Your task to perform on an android device: Search for Italian restaurants on Maps Image 0: 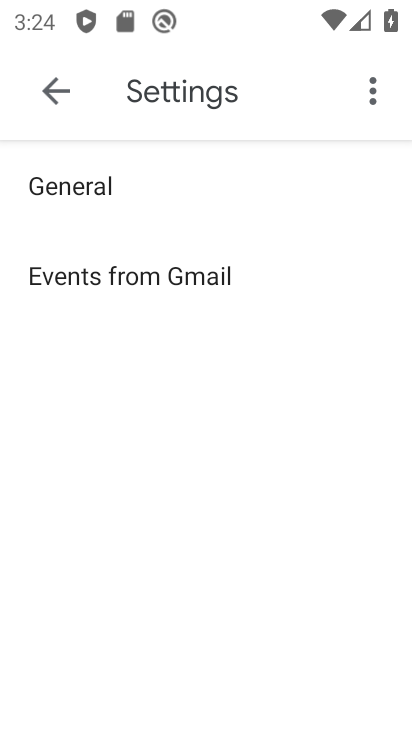
Step 0: press home button
Your task to perform on an android device: Search for Italian restaurants on Maps Image 1: 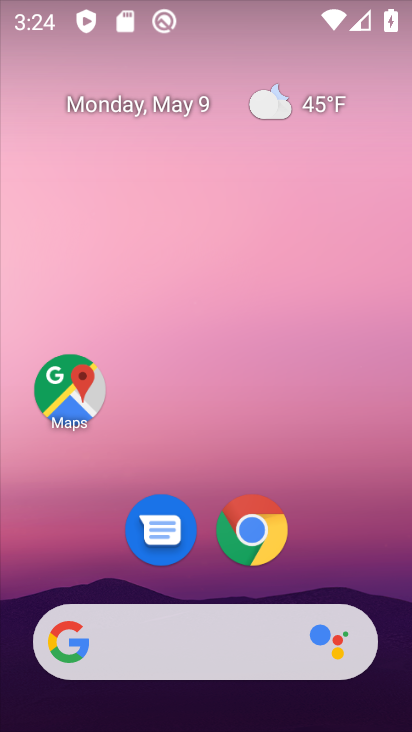
Step 1: click (58, 398)
Your task to perform on an android device: Search for Italian restaurants on Maps Image 2: 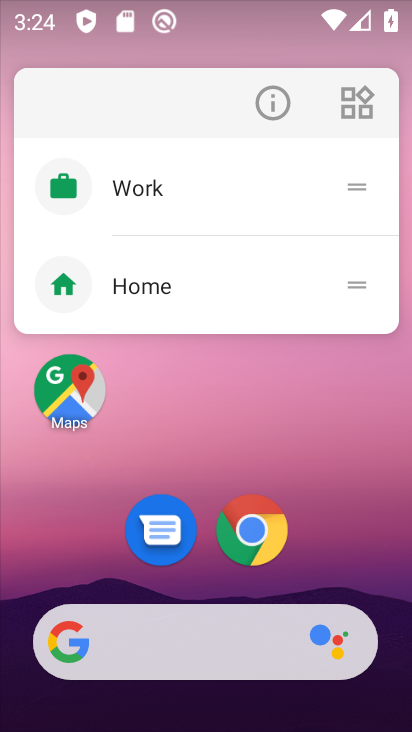
Step 2: click (66, 391)
Your task to perform on an android device: Search for Italian restaurants on Maps Image 3: 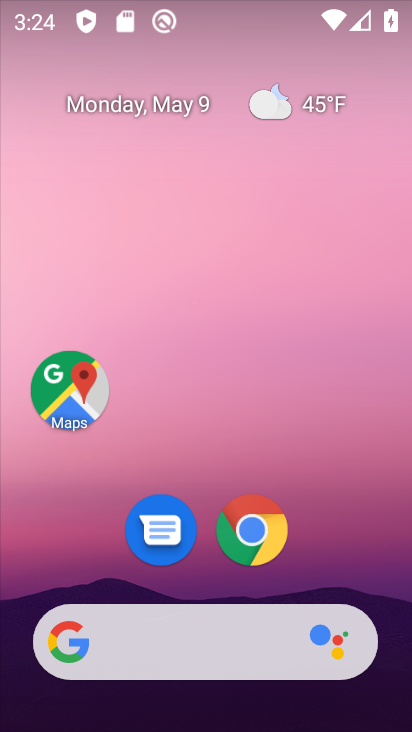
Step 3: click (66, 391)
Your task to perform on an android device: Search for Italian restaurants on Maps Image 4: 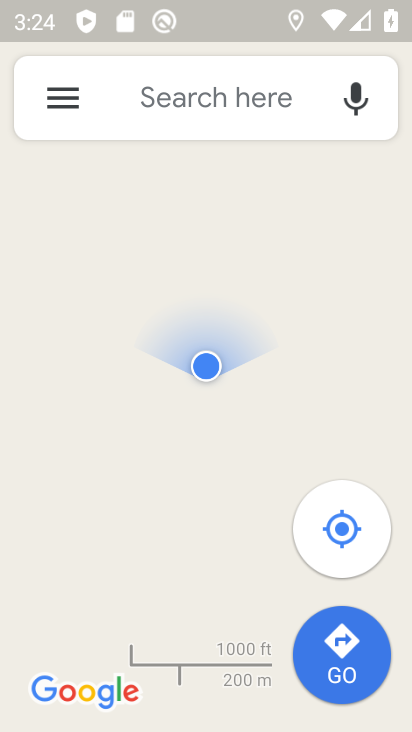
Step 4: click (102, 93)
Your task to perform on an android device: Search for Italian restaurants on Maps Image 5: 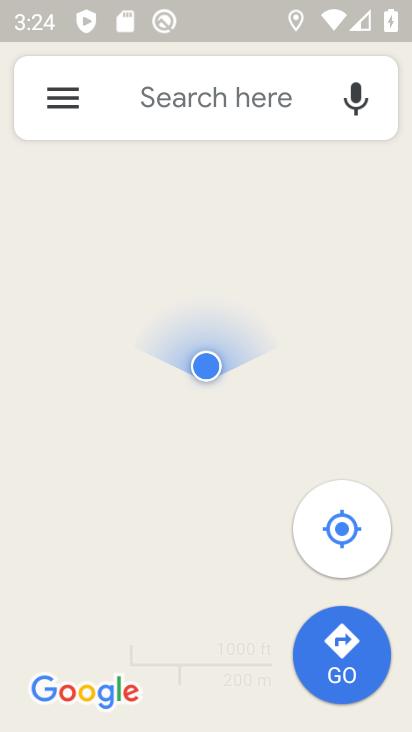
Step 5: click (153, 110)
Your task to perform on an android device: Search for Italian restaurants on Maps Image 6: 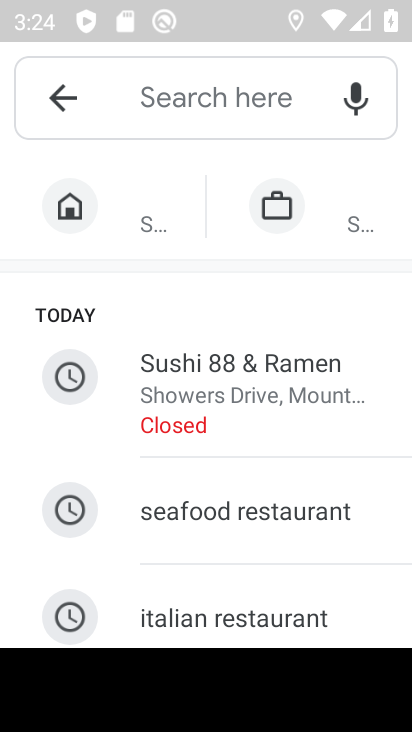
Step 6: click (271, 614)
Your task to perform on an android device: Search for Italian restaurants on Maps Image 7: 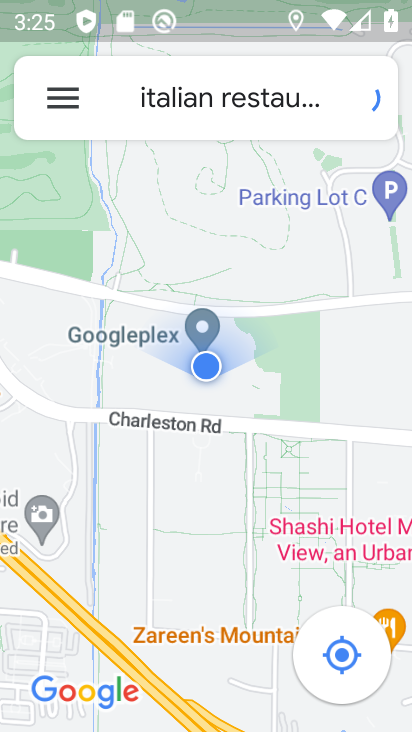
Step 7: click (237, 619)
Your task to perform on an android device: Search for Italian restaurants on Maps Image 8: 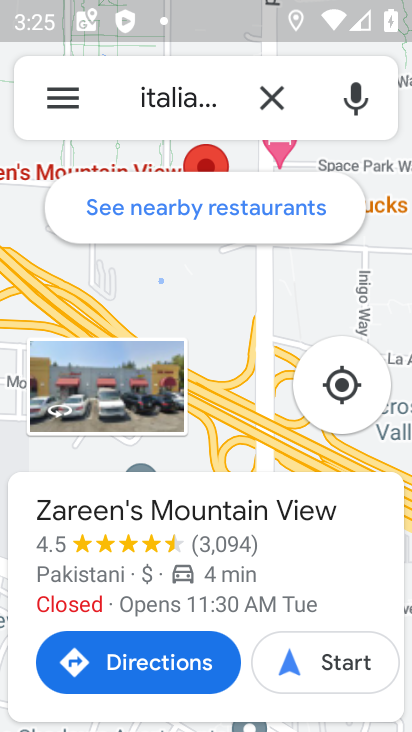
Step 8: task complete